Your task to perform on an android device: turn off notifications in google photos Image 0: 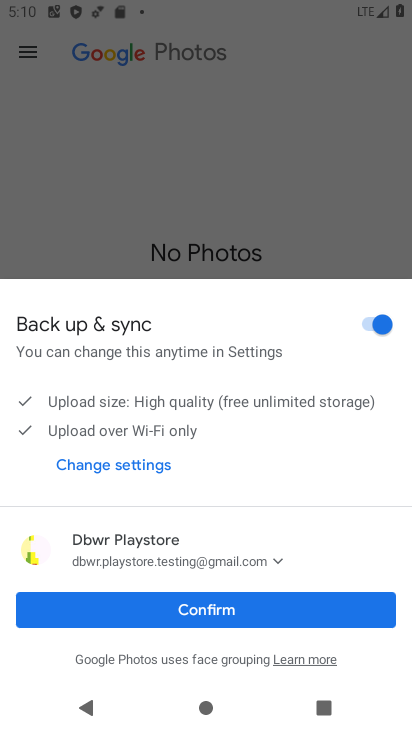
Step 0: click (231, 617)
Your task to perform on an android device: turn off notifications in google photos Image 1: 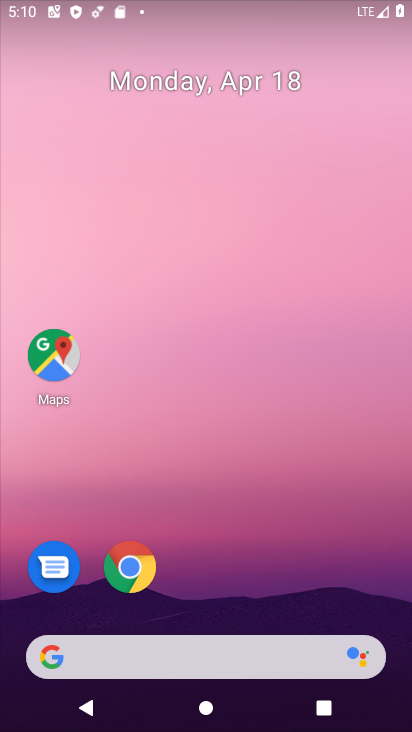
Step 1: drag from (299, 538) to (180, 17)
Your task to perform on an android device: turn off notifications in google photos Image 2: 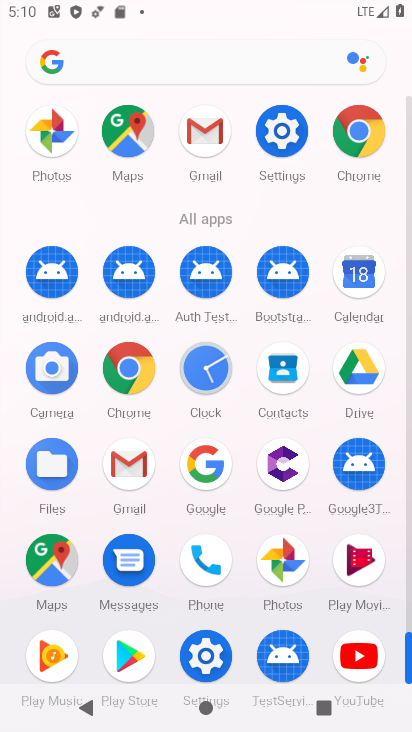
Step 2: drag from (0, 511) to (0, 457)
Your task to perform on an android device: turn off notifications in google photos Image 3: 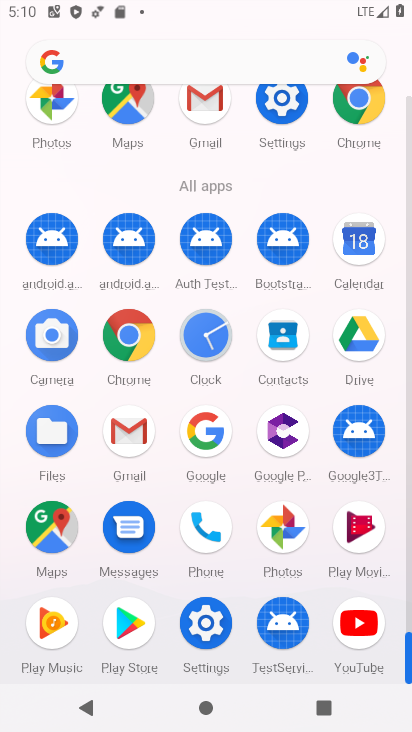
Step 3: click (283, 528)
Your task to perform on an android device: turn off notifications in google photos Image 4: 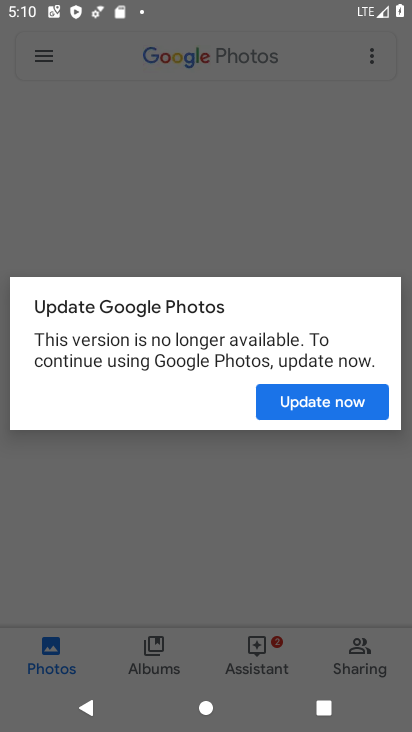
Step 4: click (330, 401)
Your task to perform on an android device: turn off notifications in google photos Image 5: 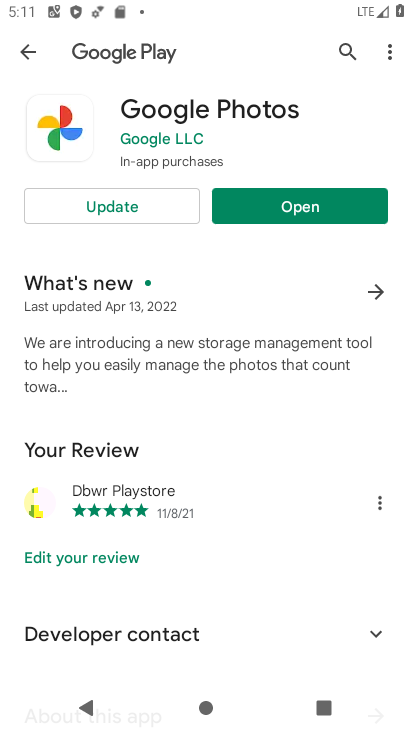
Step 5: click (124, 200)
Your task to perform on an android device: turn off notifications in google photos Image 6: 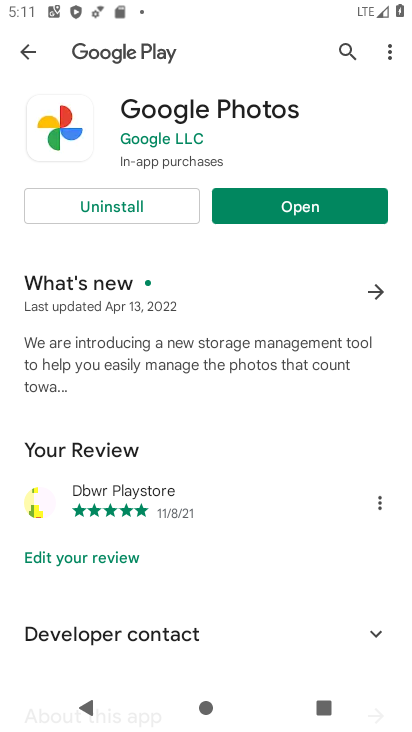
Step 6: click (324, 197)
Your task to perform on an android device: turn off notifications in google photos Image 7: 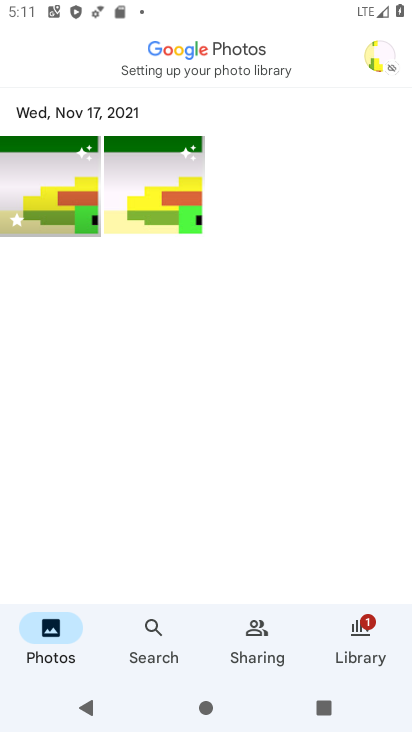
Step 7: click (380, 58)
Your task to perform on an android device: turn off notifications in google photos Image 8: 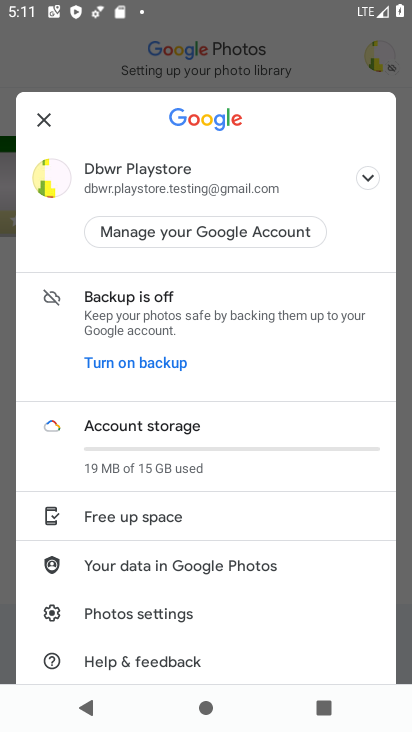
Step 8: drag from (252, 593) to (256, 222)
Your task to perform on an android device: turn off notifications in google photos Image 9: 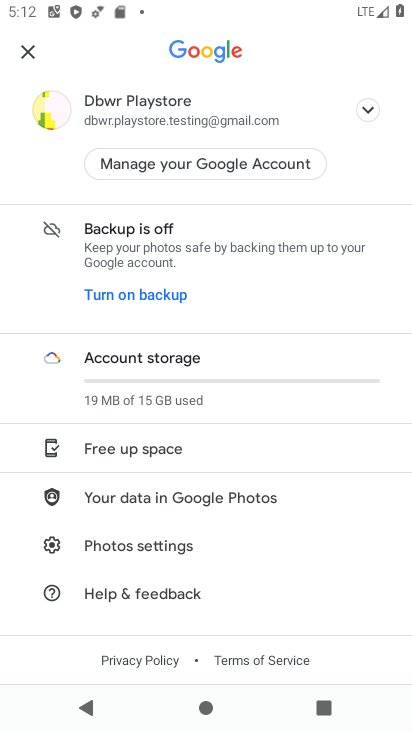
Step 9: click (148, 539)
Your task to perform on an android device: turn off notifications in google photos Image 10: 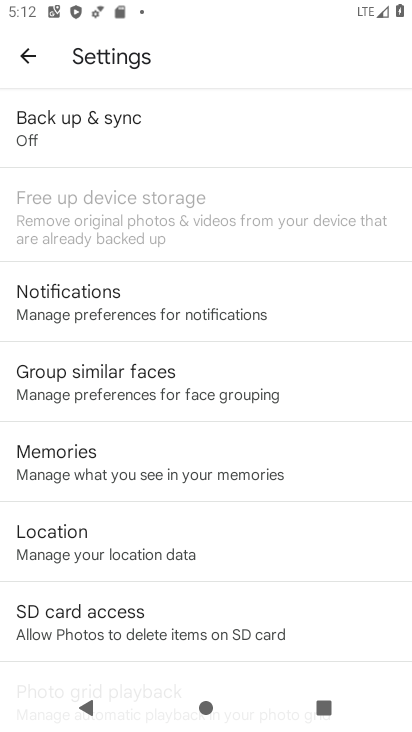
Step 10: click (165, 295)
Your task to perform on an android device: turn off notifications in google photos Image 11: 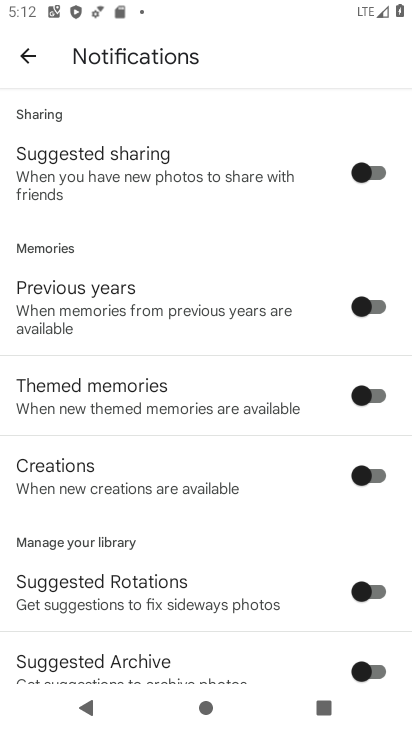
Step 11: drag from (165, 475) to (153, 121)
Your task to perform on an android device: turn off notifications in google photos Image 12: 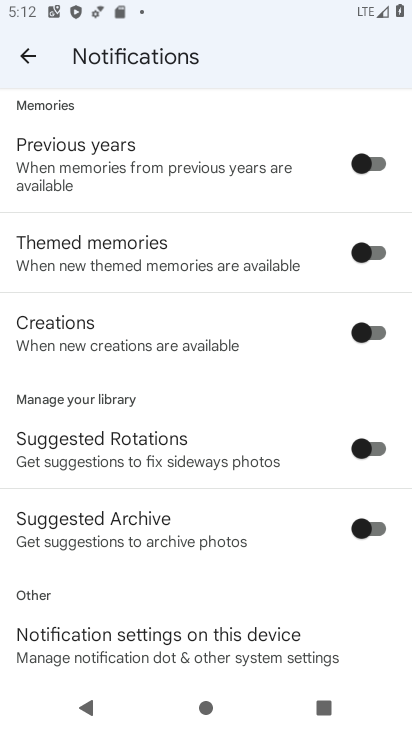
Step 12: drag from (136, 575) to (136, 100)
Your task to perform on an android device: turn off notifications in google photos Image 13: 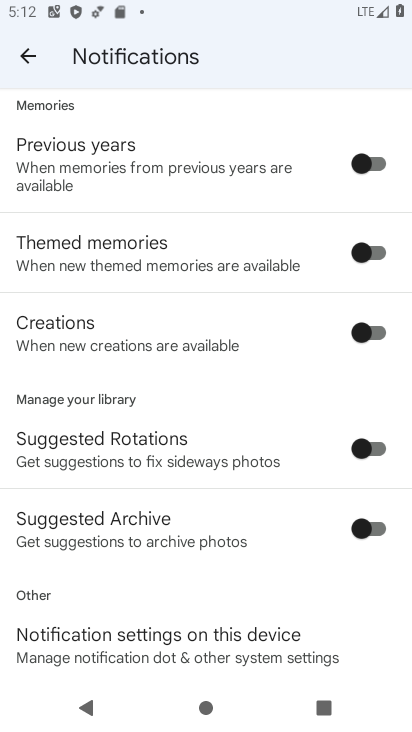
Step 13: click (145, 653)
Your task to perform on an android device: turn off notifications in google photos Image 14: 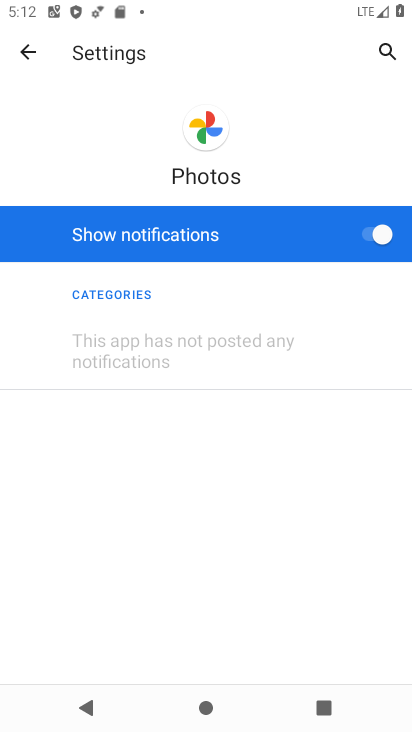
Step 14: click (365, 232)
Your task to perform on an android device: turn off notifications in google photos Image 15: 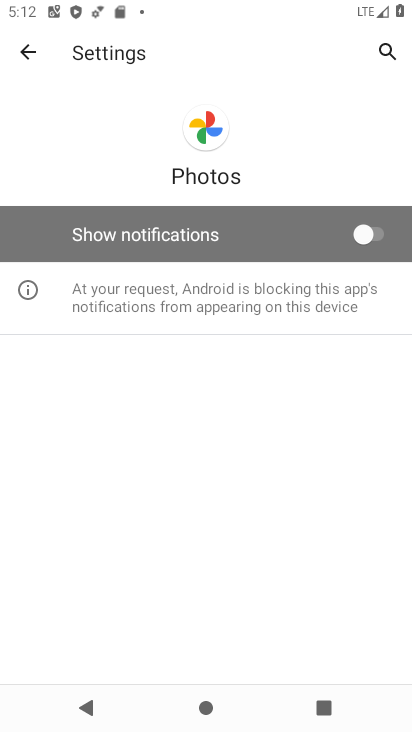
Step 15: task complete